Your task to perform on an android device: Search for vegetarian restaurants on Maps Image 0: 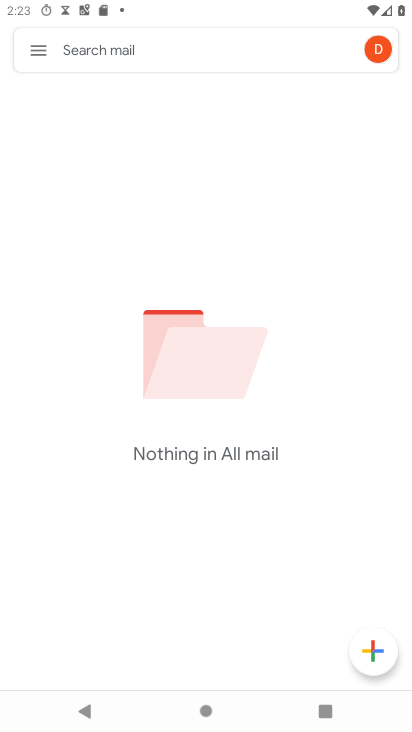
Step 0: press home button
Your task to perform on an android device: Search for vegetarian restaurants on Maps Image 1: 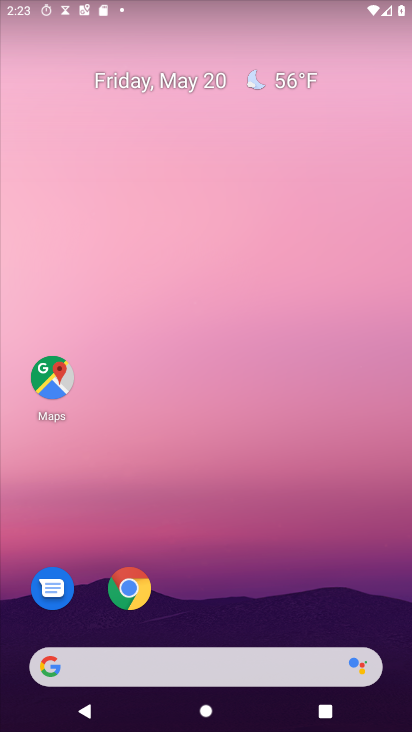
Step 1: click (57, 383)
Your task to perform on an android device: Search for vegetarian restaurants on Maps Image 2: 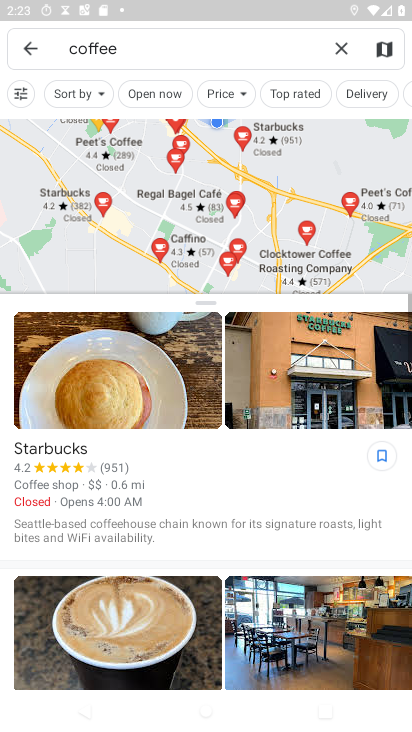
Step 2: click (336, 49)
Your task to perform on an android device: Search for vegetarian restaurants on Maps Image 3: 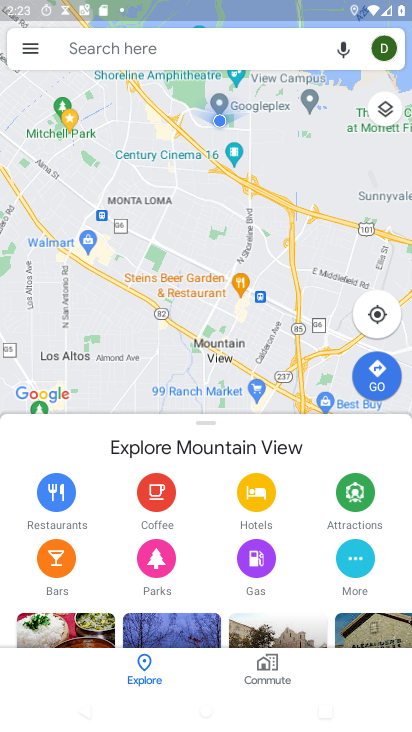
Step 3: click (144, 57)
Your task to perform on an android device: Search for vegetarian restaurants on Maps Image 4: 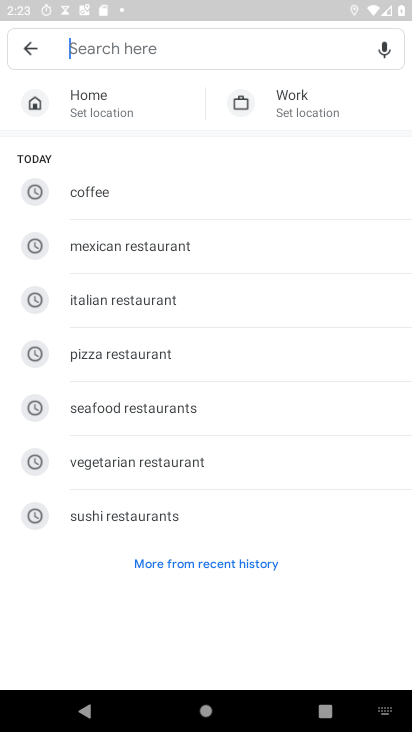
Step 4: click (116, 471)
Your task to perform on an android device: Search for vegetarian restaurants on Maps Image 5: 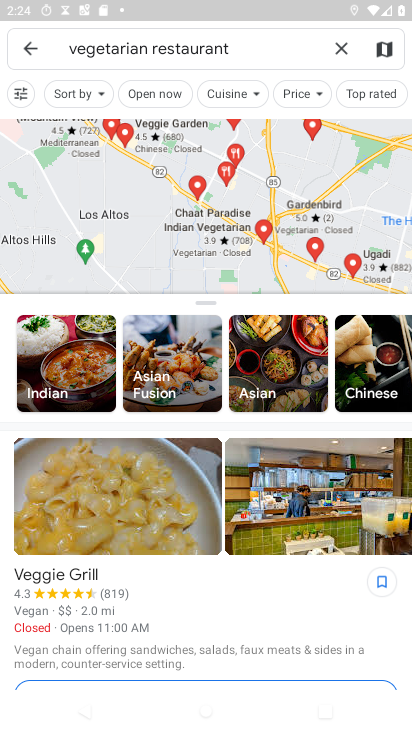
Step 5: task complete